Your task to perform on an android device: set an alarm Image 0: 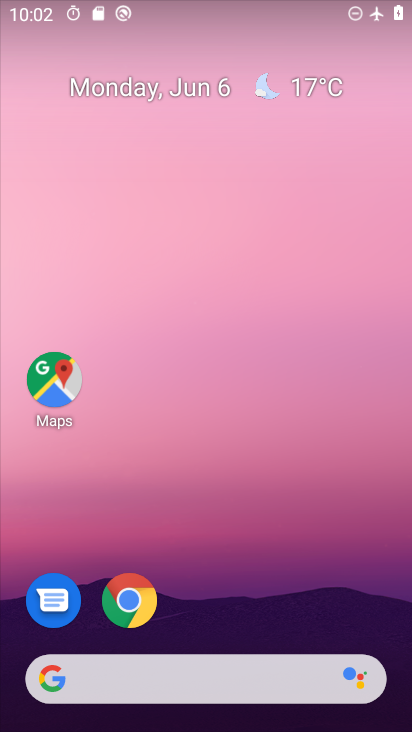
Step 0: drag from (304, 610) to (247, 97)
Your task to perform on an android device: set an alarm Image 1: 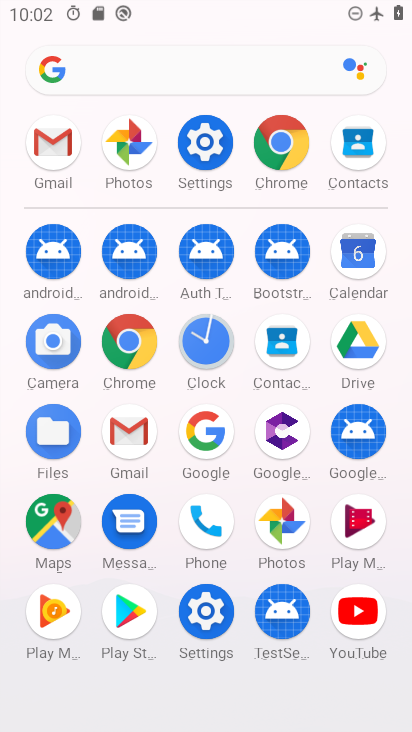
Step 1: click (205, 327)
Your task to perform on an android device: set an alarm Image 2: 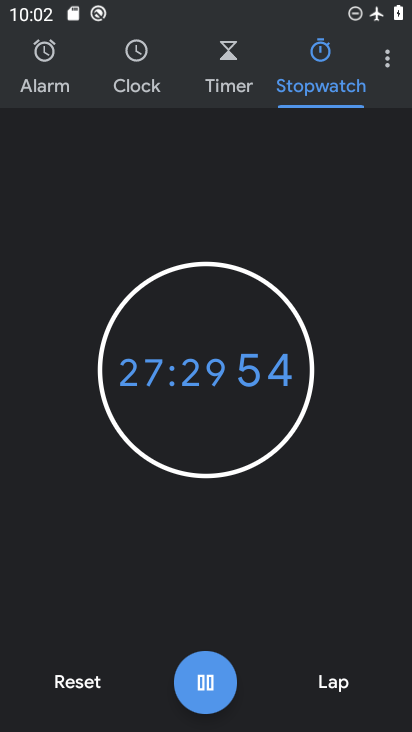
Step 2: click (47, 69)
Your task to perform on an android device: set an alarm Image 3: 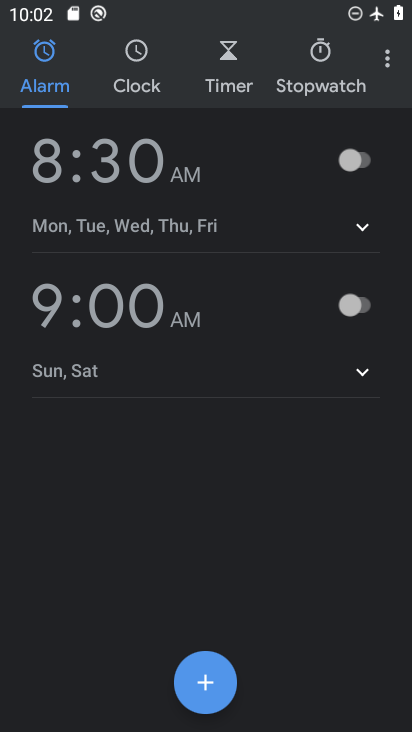
Step 3: click (352, 159)
Your task to perform on an android device: set an alarm Image 4: 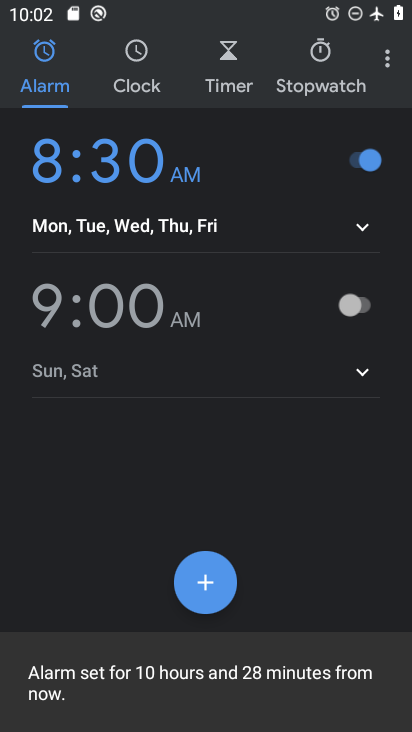
Step 4: task complete